Your task to perform on an android device: change timer sound Image 0: 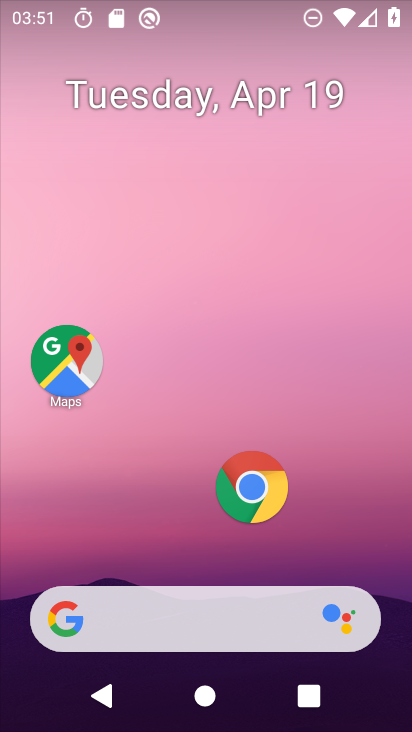
Step 0: drag from (184, 518) to (258, 42)
Your task to perform on an android device: change timer sound Image 1: 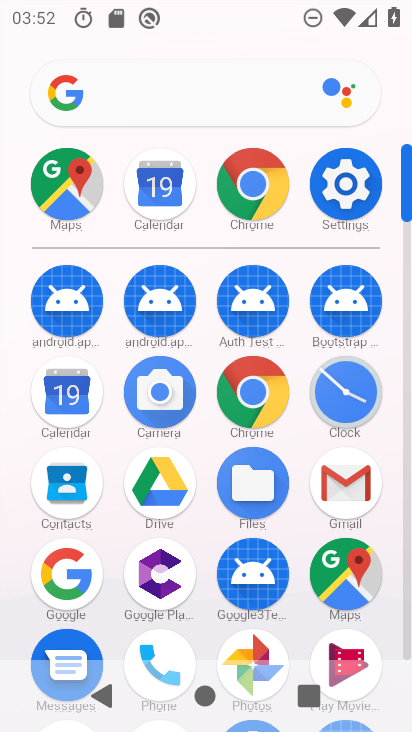
Step 1: click (339, 383)
Your task to perform on an android device: change timer sound Image 2: 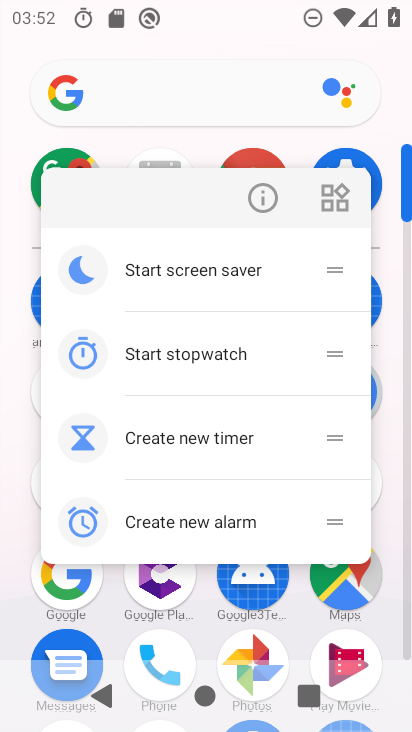
Step 2: click (376, 395)
Your task to perform on an android device: change timer sound Image 3: 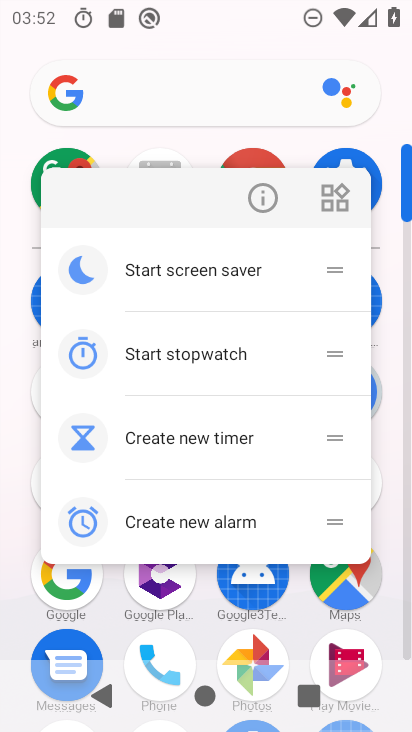
Step 3: click (375, 392)
Your task to perform on an android device: change timer sound Image 4: 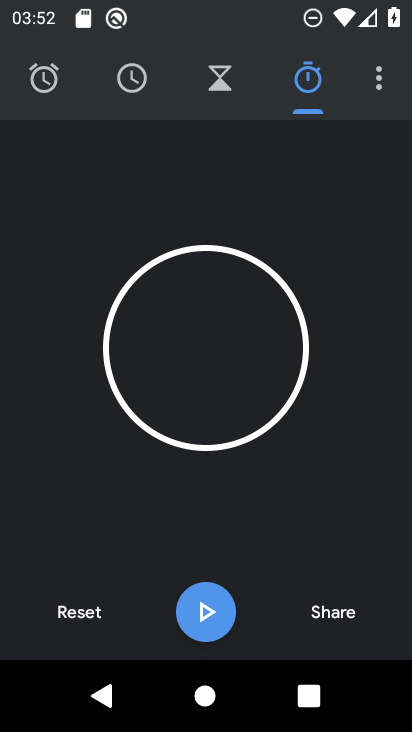
Step 4: drag from (379, 82) to (192, 144)
Your task to perform on an android device: change timer sound Image 5: 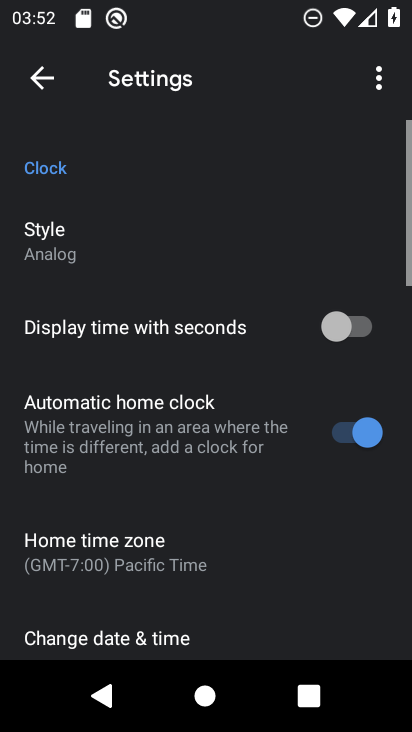
Step 5: drag from (125, 566) to (189, 217)
Your task to perform on an android device: change timer sound Image 6: 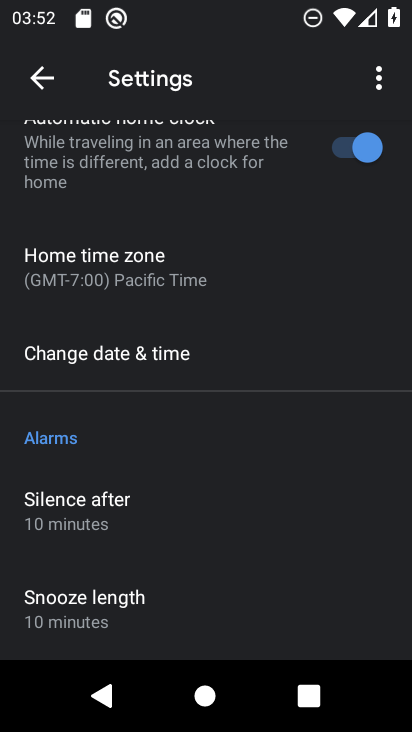
Step 6: drag from (151, 568) to (284, 50)
Your task to perform on an android device: change timer sound Image 7: 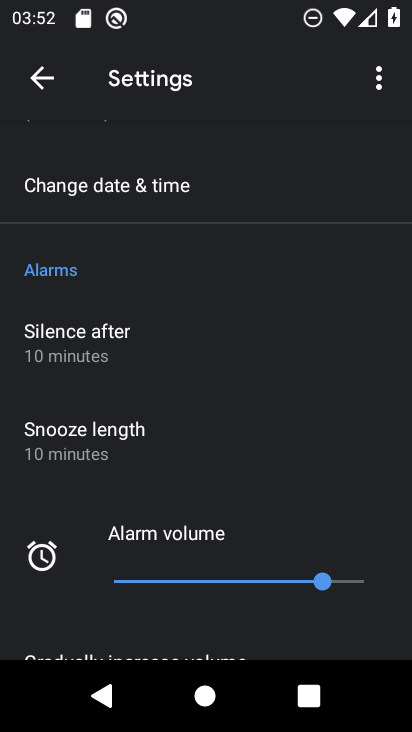
Step 7: drag from (177, 517) to (281, 137)
Your task to perform on an android device: change timer sound Image 8: 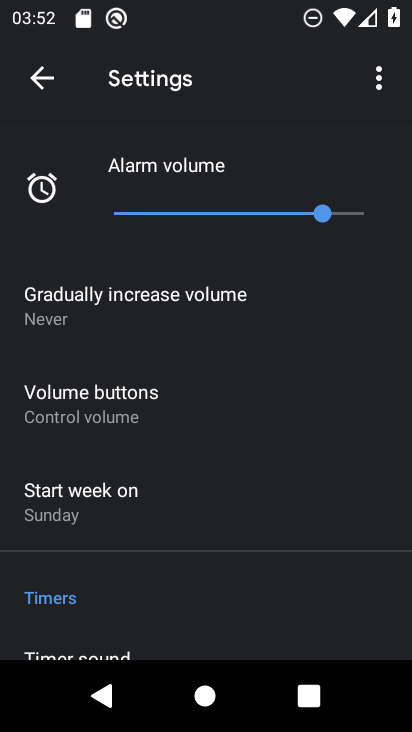
Step 8: drag from (185, 561) to (233, 315)
Your task to perform on an android device: change timer sound Image 9: 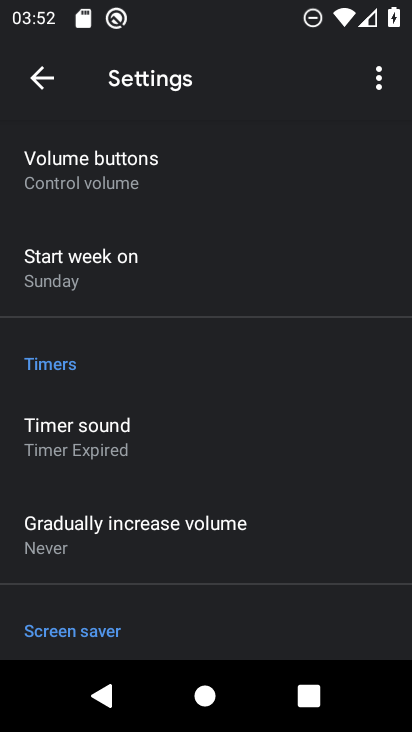
Step 9: click (72, 432)
Your task to perform on an android device: change timer sound Image 10: 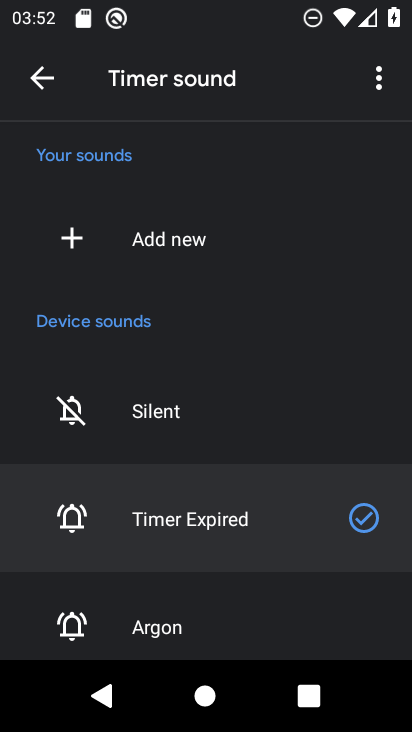
Step 10: click (181, 612)
Your task to perform on an android device: change timer sound Image 11: 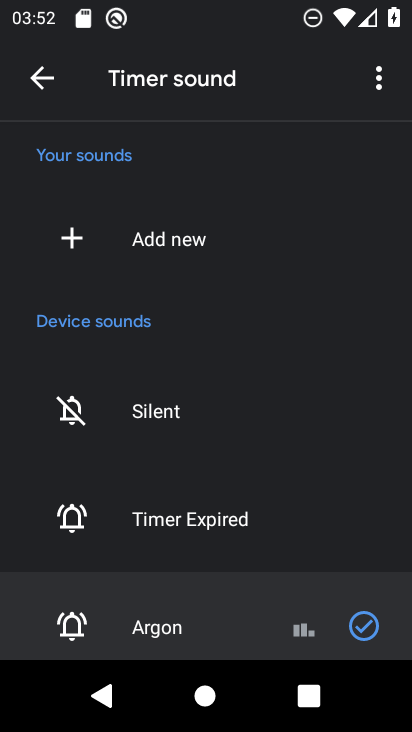
Step 11: task complete